Your task to perform on an android device: remove spam from my inbox in the gmail app Image 0: 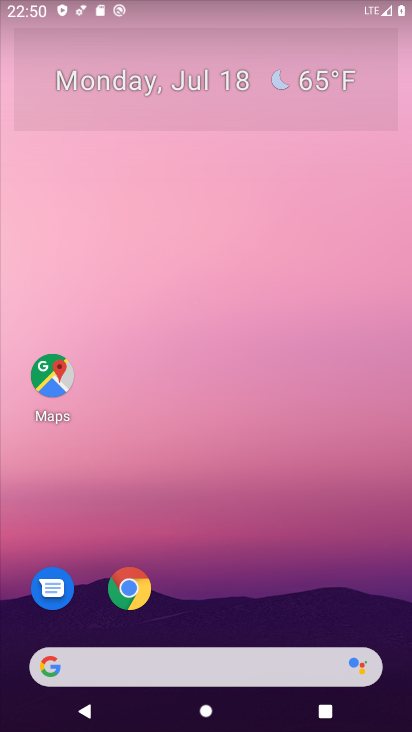
Step 0: drag from (269, 608) to (291, 153)
Your task to perform on an android device: remove spam from my inbox in the gmail app Image 1: 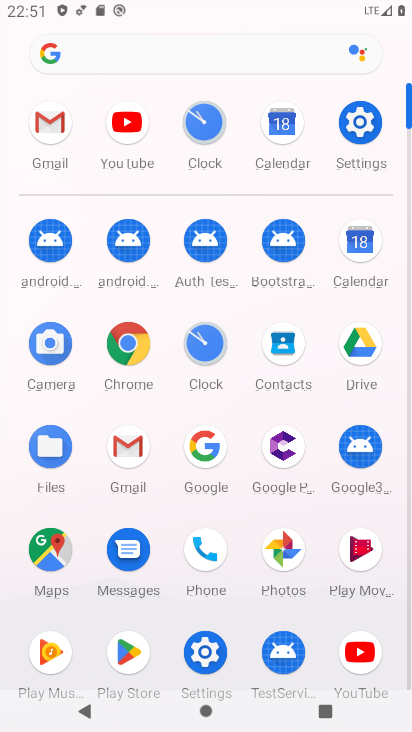
Step 1: click (47, 121)
Your task to perform on an android device: remove spam from my inbox in the gmail app Image 2: 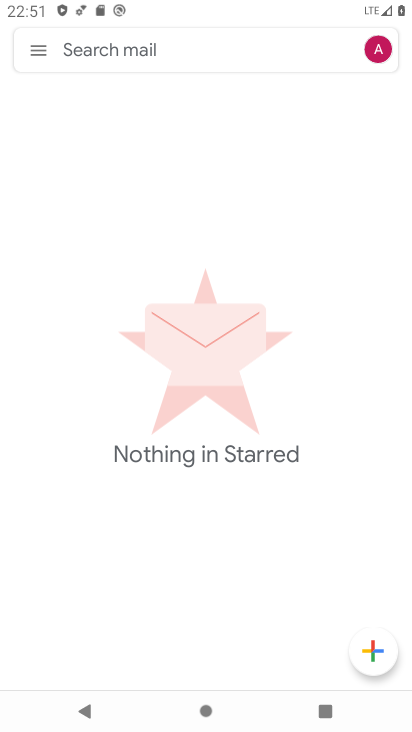
Step 2: click (38, 41)
Your task to perform on an android device: remove spam from my inbox in the gmail app Image 3: 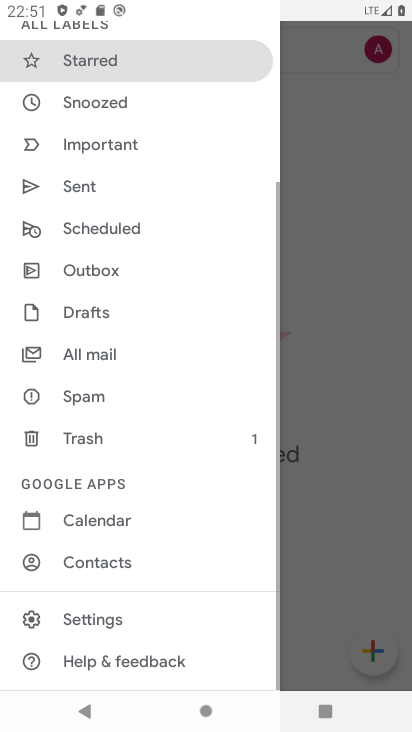
Step 3: task complete